Your task to perform on an android device: When is my next appointment? Image 0: 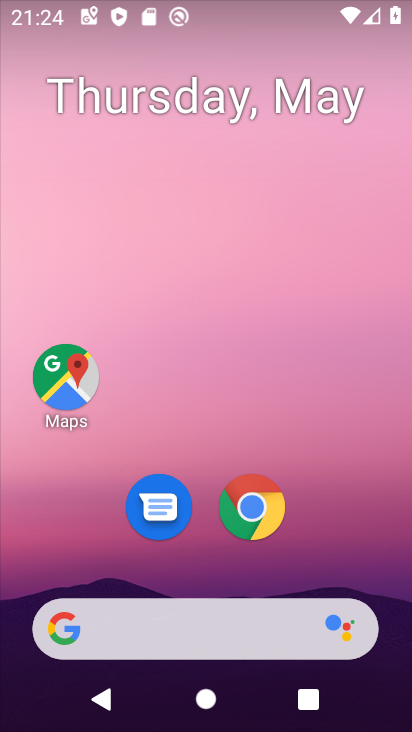
Step 0: drag from (236, 670) to (302, 272)
Your task to perform on an android device: When is my next appointment? Image 1: 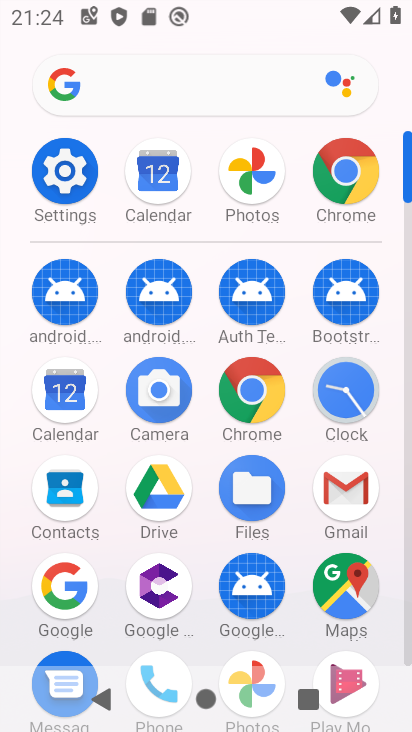
Step 1: click (56, 386)
Your task to perform on an android device: When is my next appointment? Image 2: 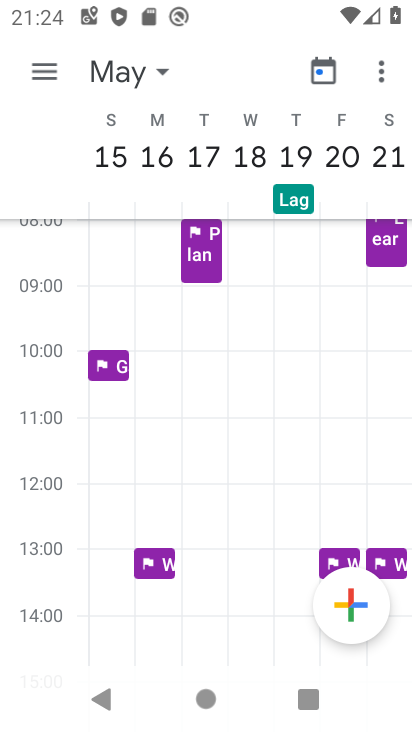
Step 2: click (48, 71)
Your task to perform on an android device: When is my next appointment? Image 3: 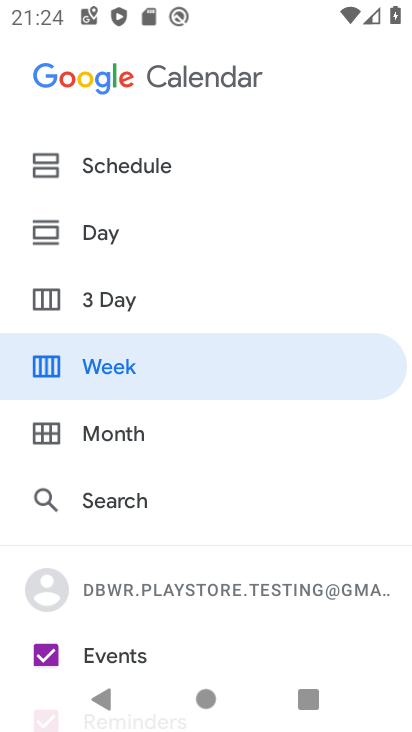
Step 3: click (150, 176)
Your task to perform on an android device: When is my next appointment? Image 4: 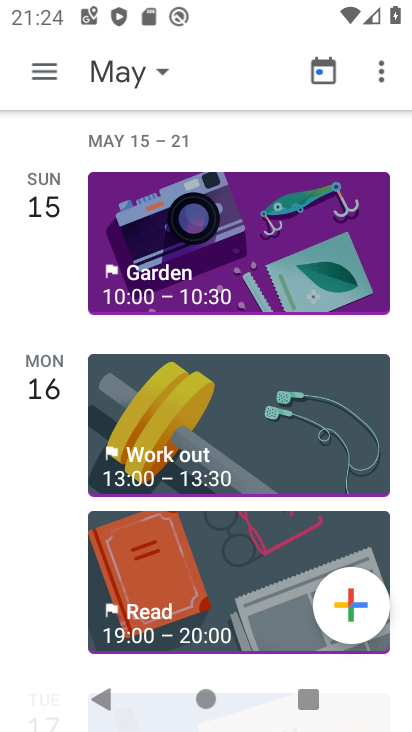
Step 4: click (53, 89)
Your task to perform on an android device: When is my next appointment? Image 5: 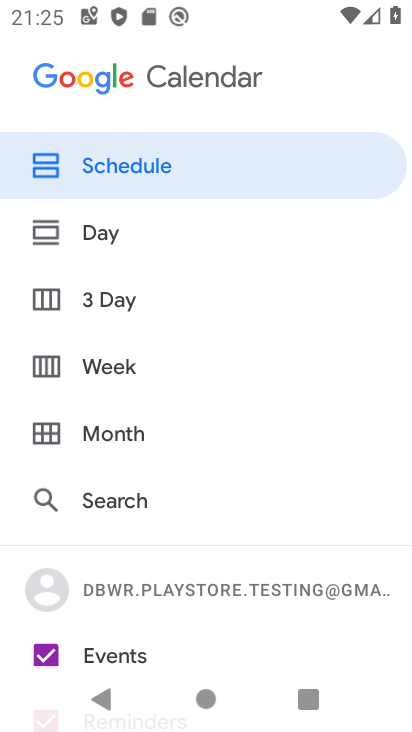
Step 5: click (150, 438)
Your task to perform on an android device: When is my next appointment? Image 6: 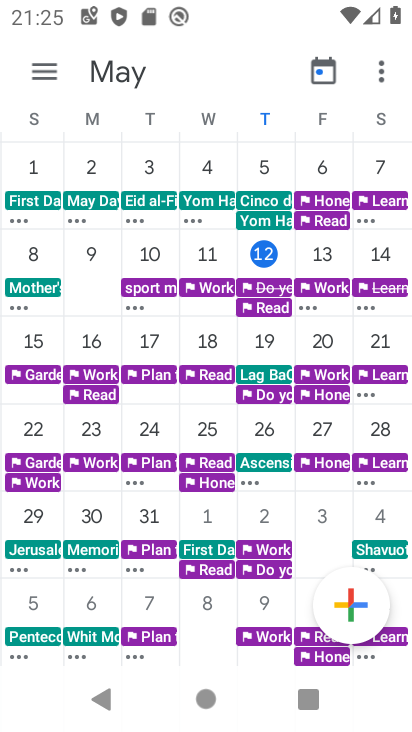
Step 6: click (258, 250)
Your task to perform on an android device: When is my next appointment? Image 7: 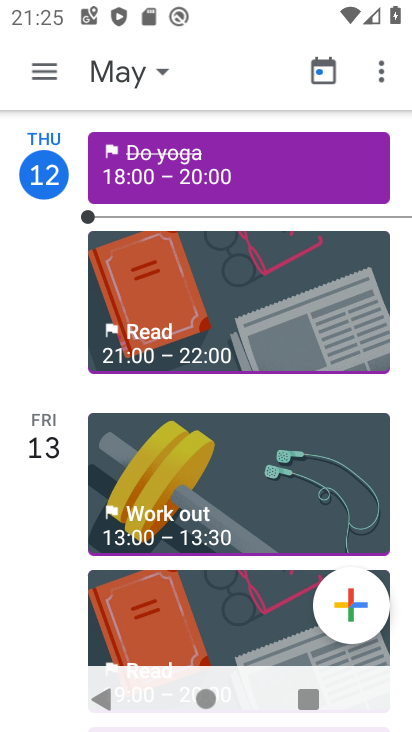
Step 7: task complete